Your task to perform on an android device: open app "Airtel Thanks" Image 0: 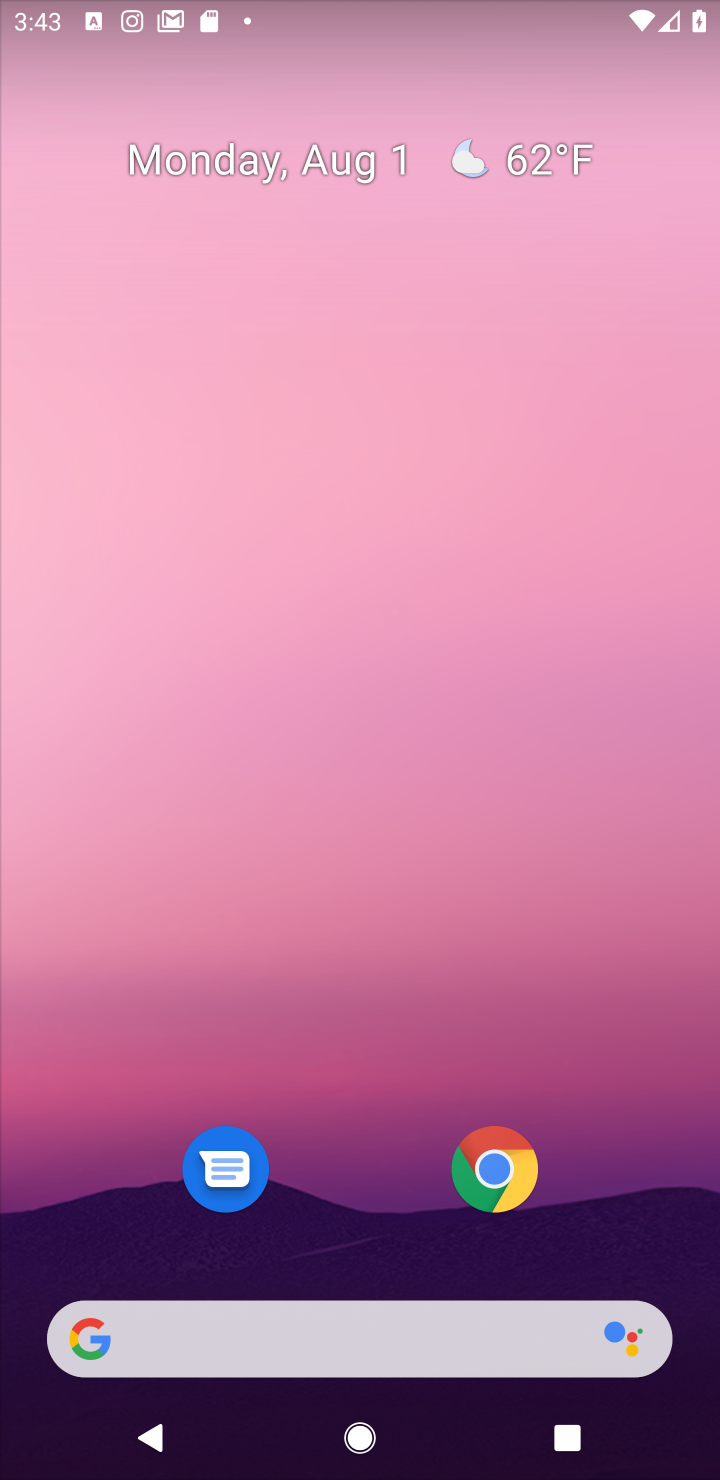
Step 0: drag from (337, 1199) to (337, 373)
Your task to perform on an android device: open app "Airtel Thanks" Image 1: 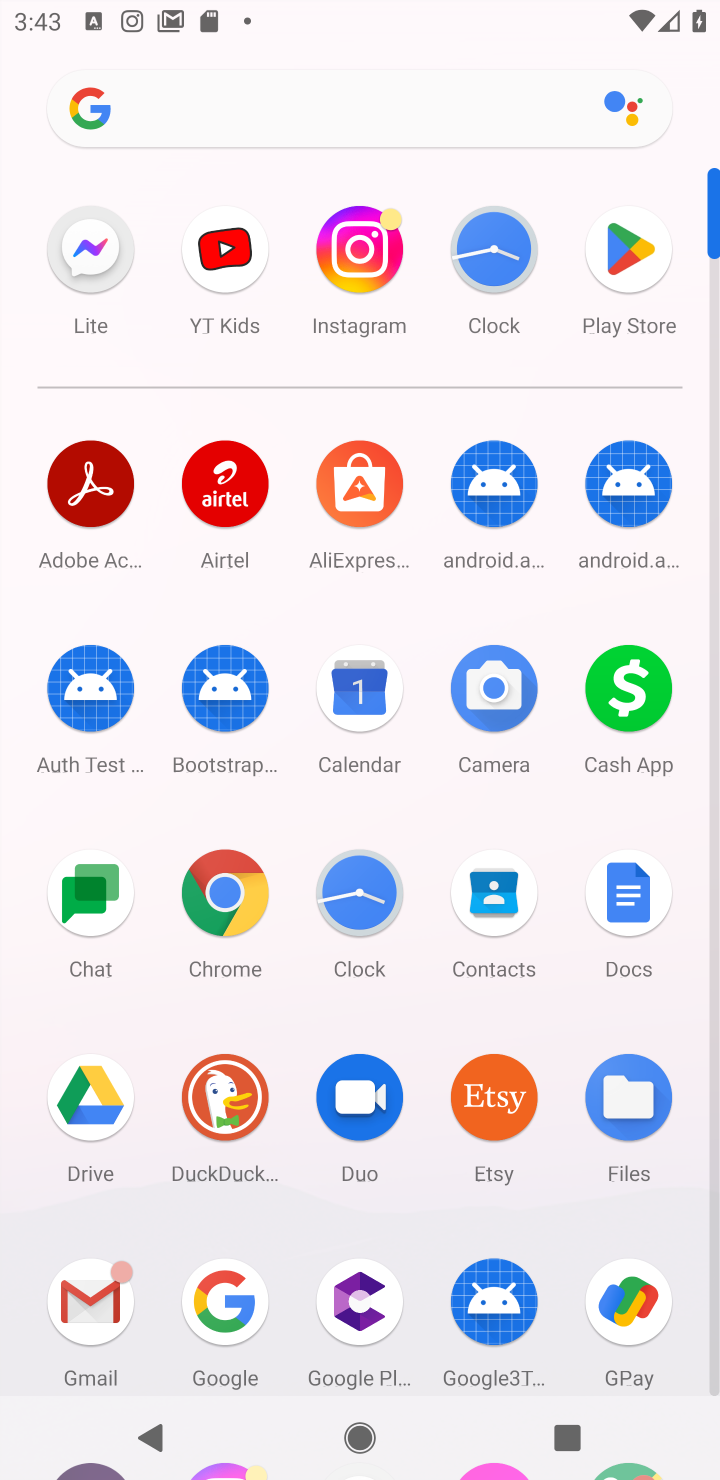
Step 1: click (644, 303)
Your task to perform on an android device: open app "Airtel Thanks" Image 2: 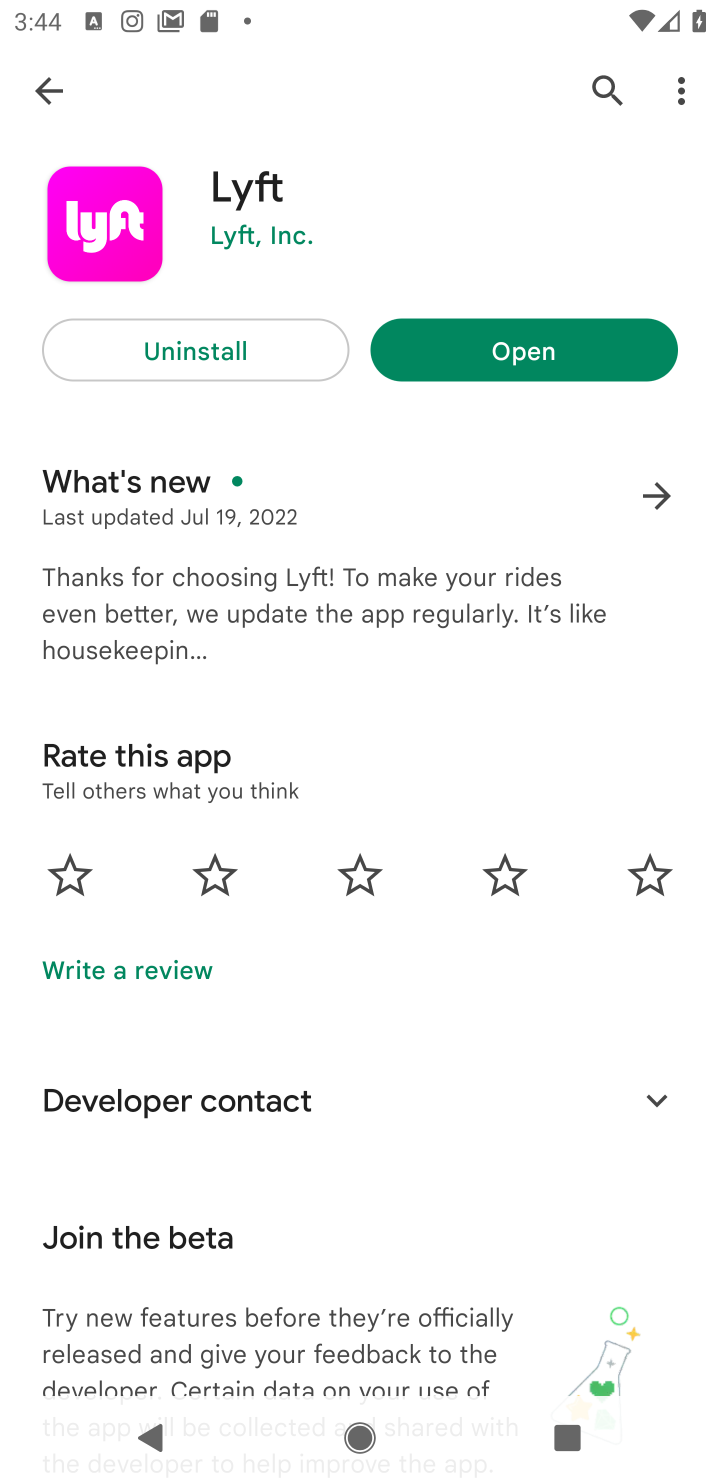
Step 2: click (42, 91)
Your task to perform on an android device: open app "Airtel Thanks" Image 3: 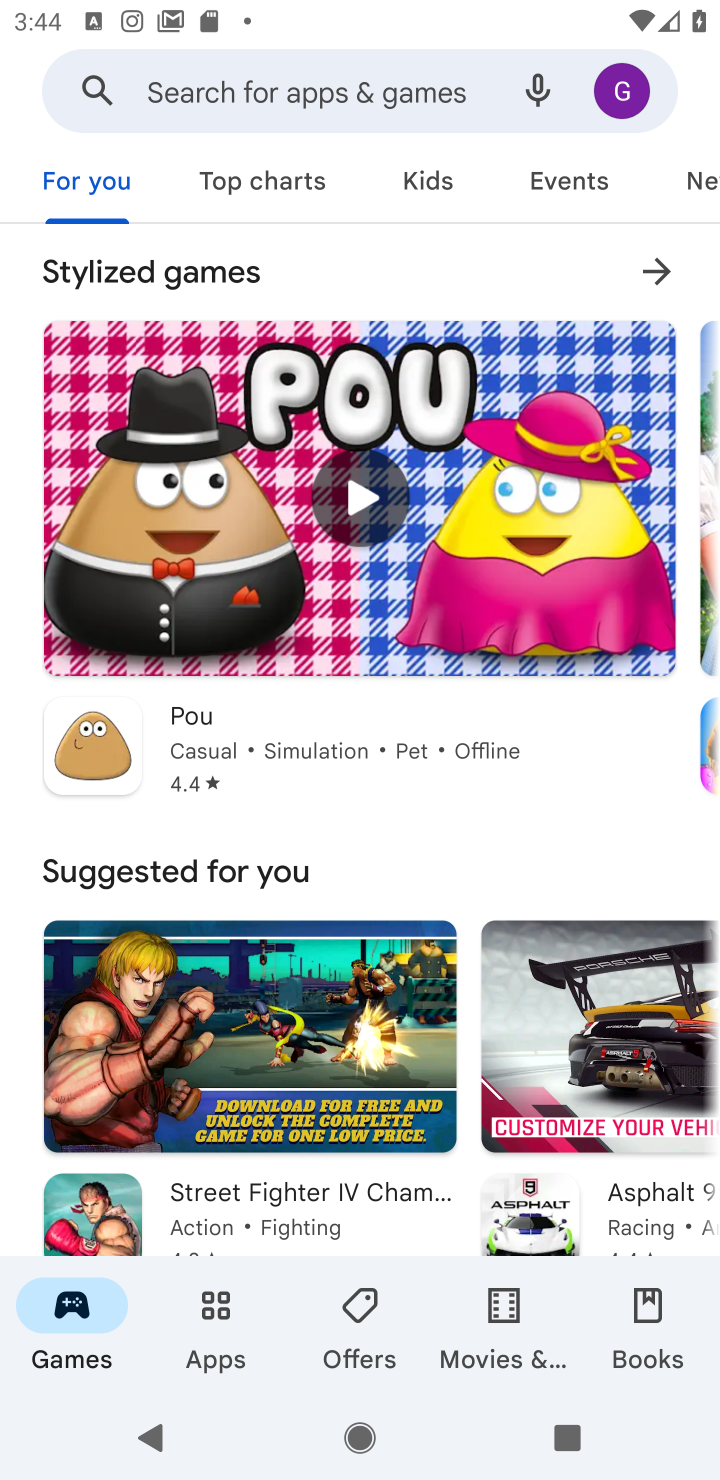
Step 3: click (224, 84)
Your task to perform on an android device: open app "Airtel Thanks" Image 4: 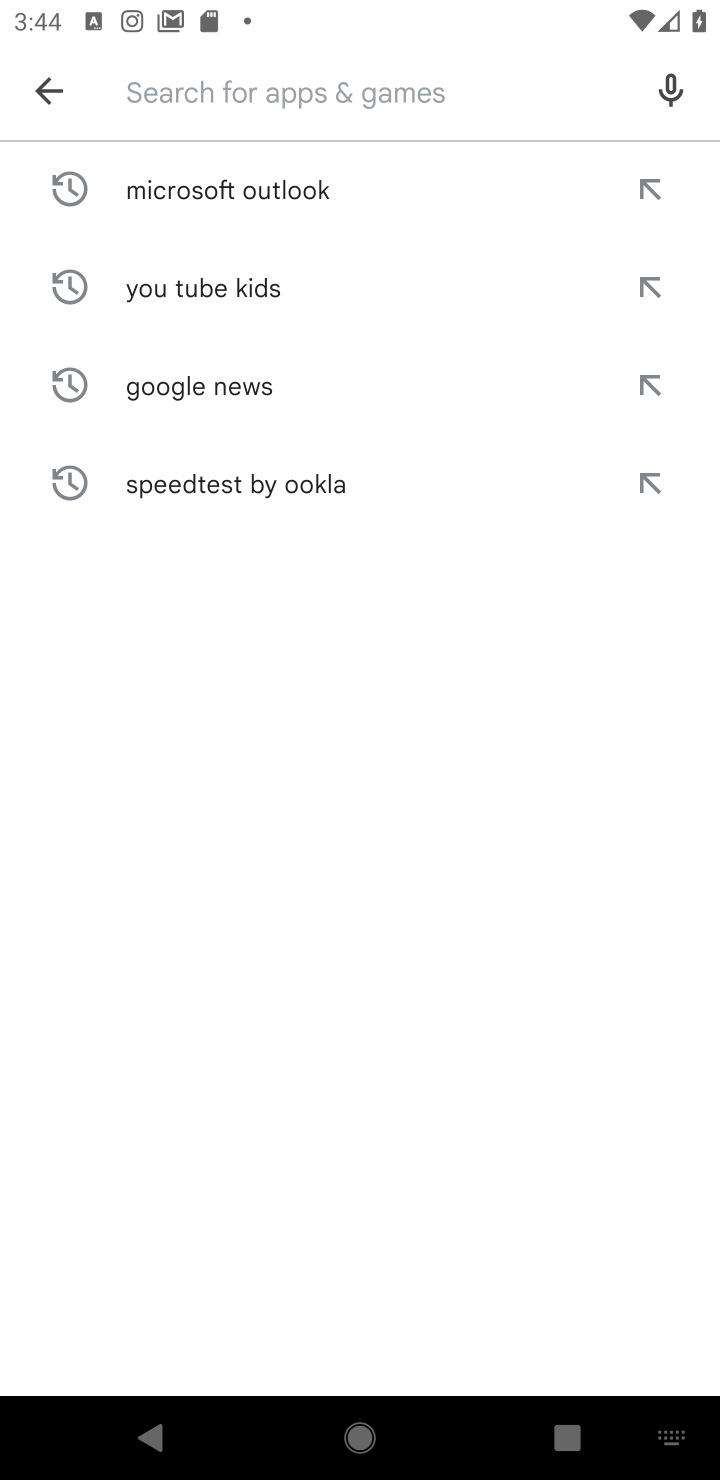
Step 4: type "Airtel Thanks"
Your task to perform on an android device: open app "Airtel Thanks" Image 5: 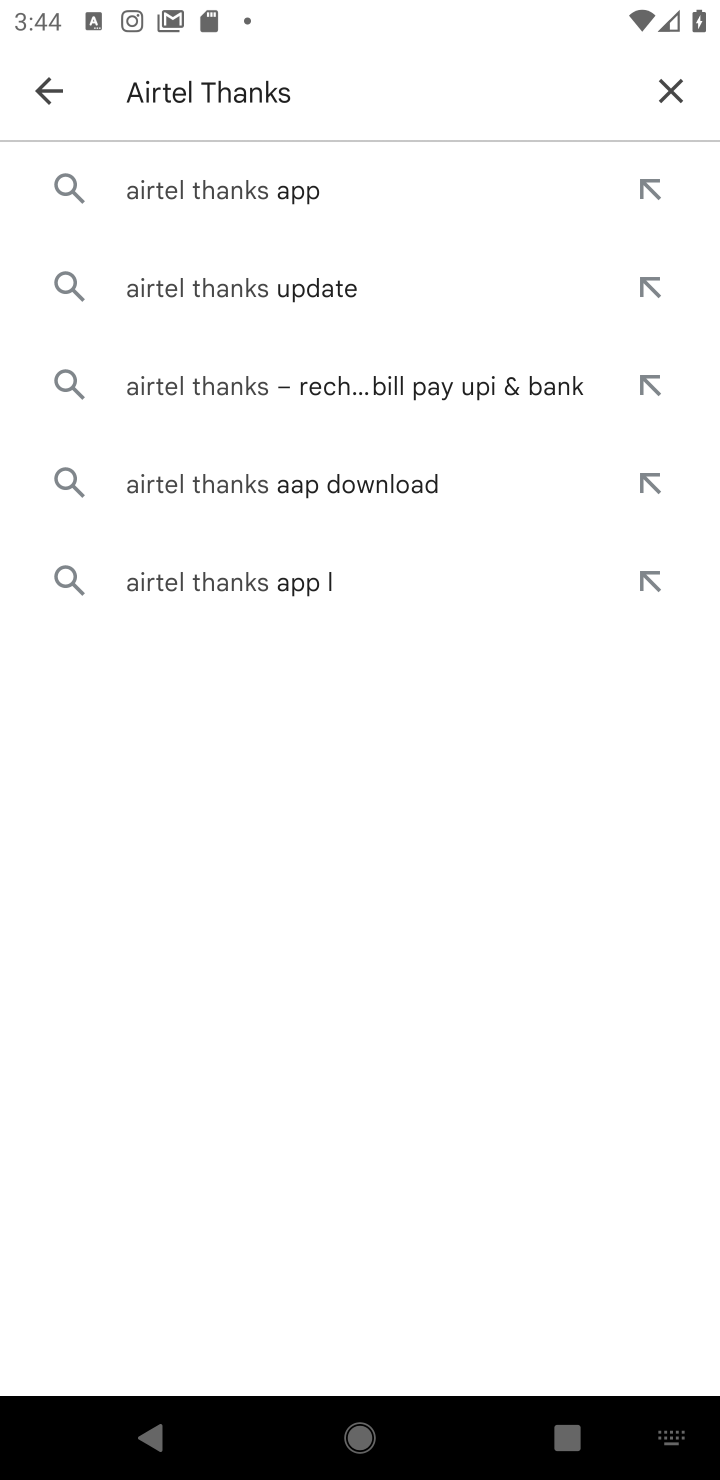
Step 5: click (305, 184)
Your task to perform on an android device: open app "Airtel Thanks" Image 6: 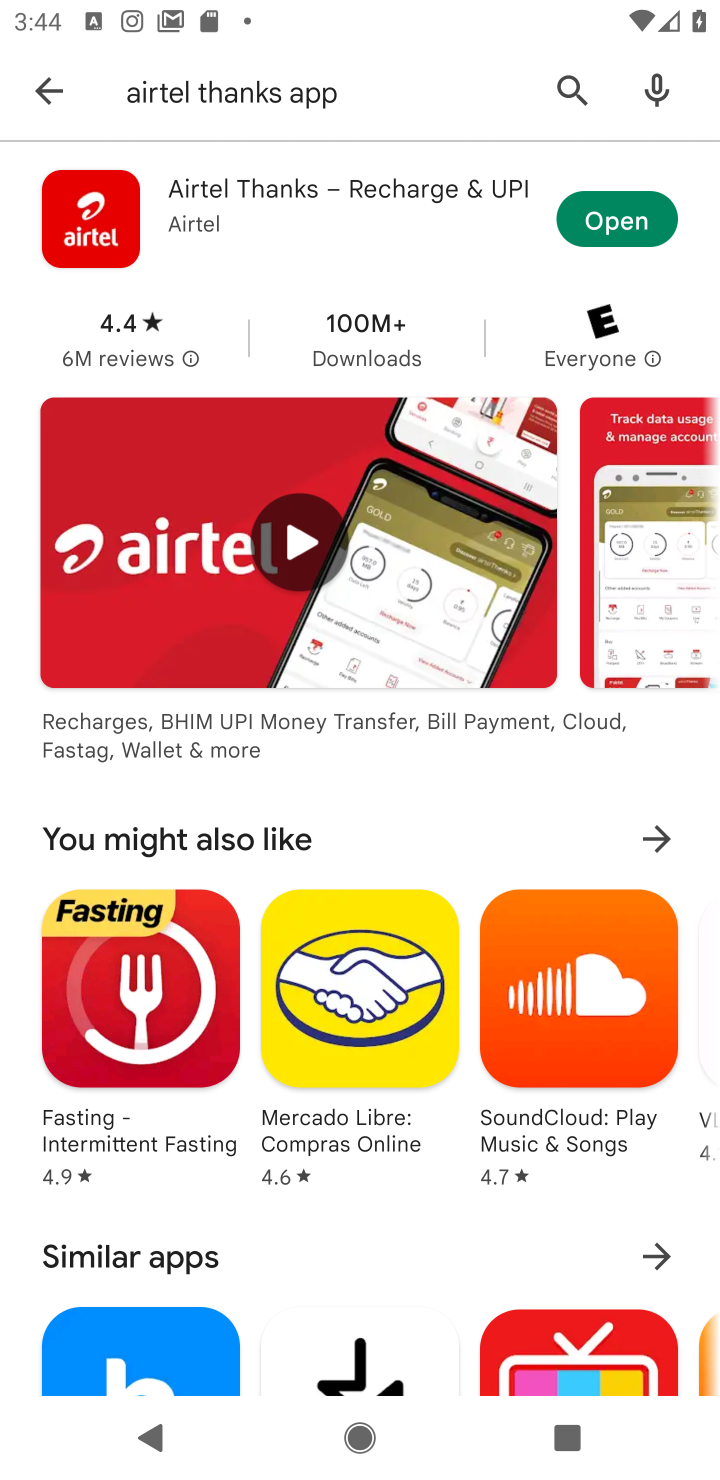
Step 6: click (583, 215)
Your task to perform on an android device: open app "Airtel Thanks" Image 7: 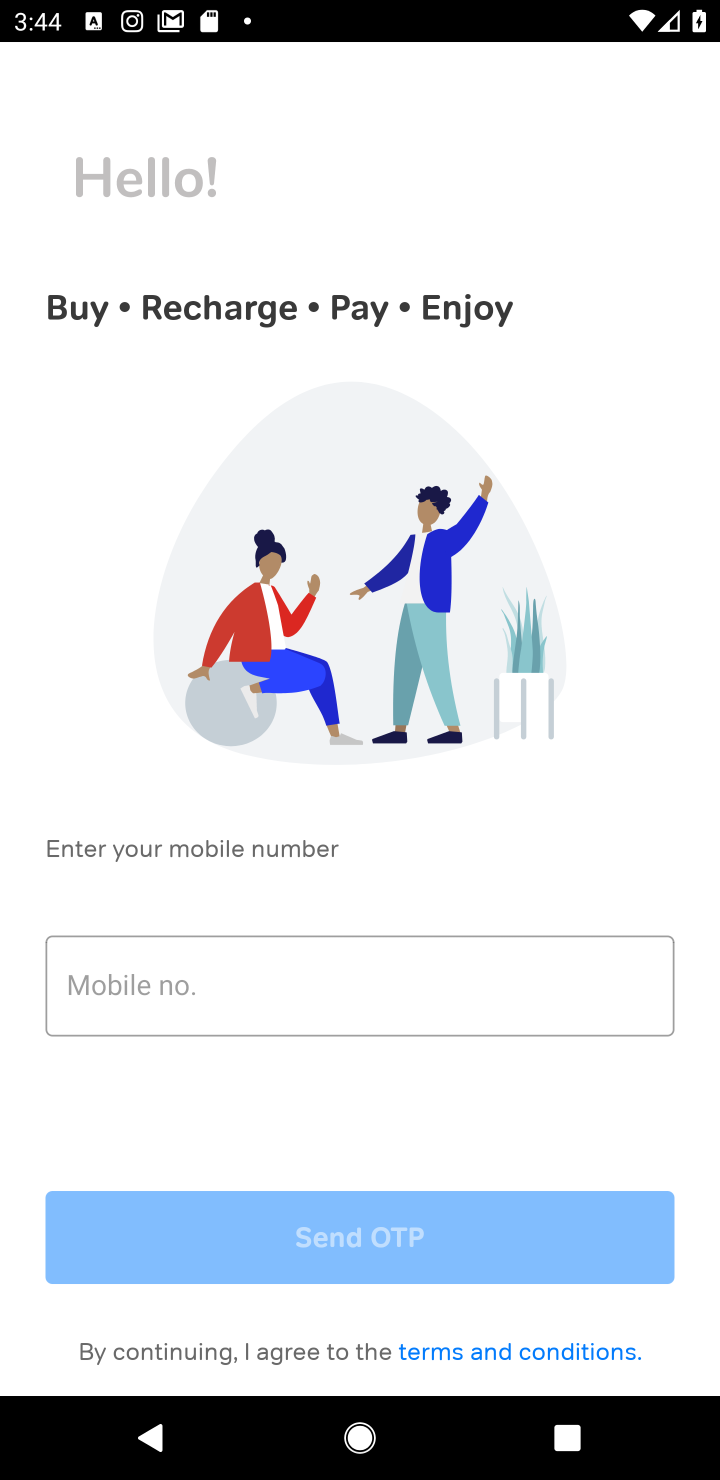
Step 7: task complete